Your task to perform on an android device: create a new album in the google photos Image 0: 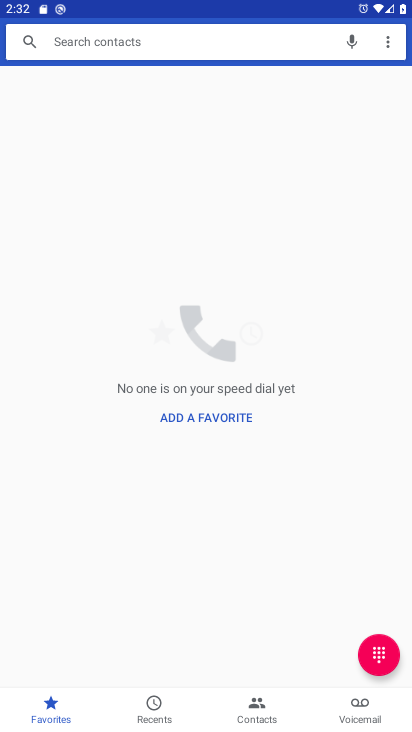
Step 0: press home button
Your task to perform on an android device: create a new album in the google photos Image 1: 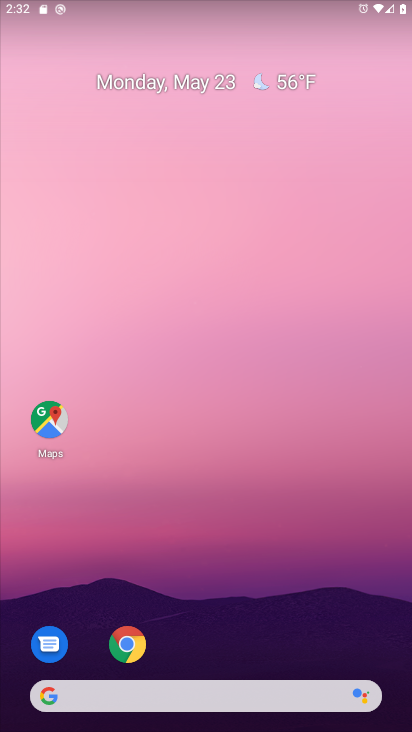
Step 1: drag from (196, 632) to (195, 143)
Your task to perform on an android device: create a new album in the google photos Image 2: 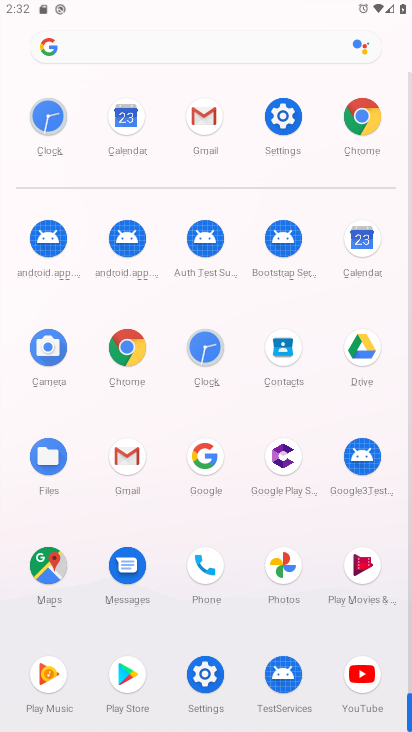
Step 2: click (275, 577)
Your task to perform on an android device: create a new album in the google photos Image 3: 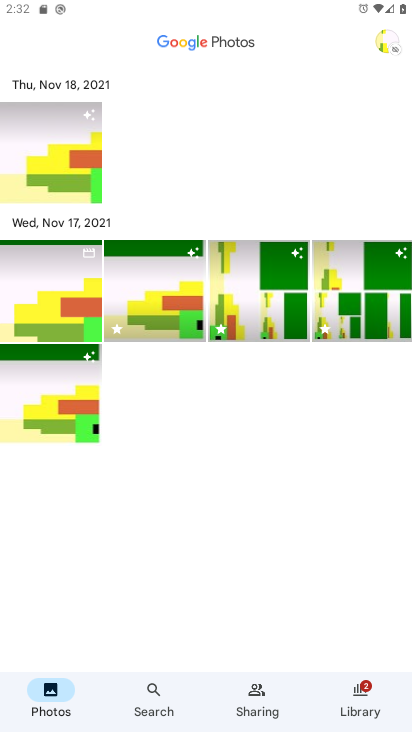
Step 3: click (365, 708)
Your task to perform on an android device: create a new album in the google photos Image 4: 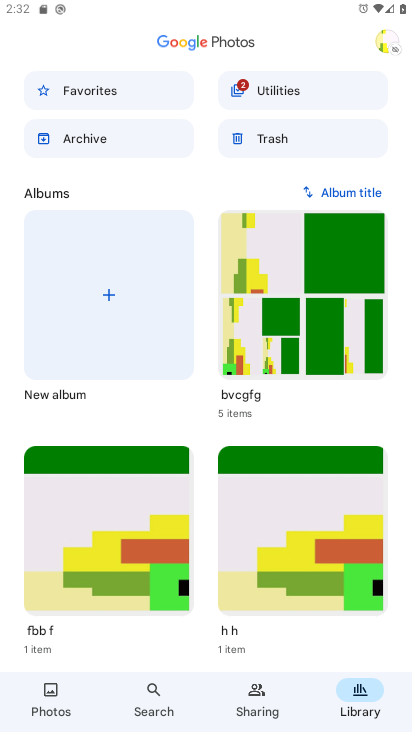
Step 4: click (103, 331)
Your task to perform on an android device: create a new album in the google photos Image 5: 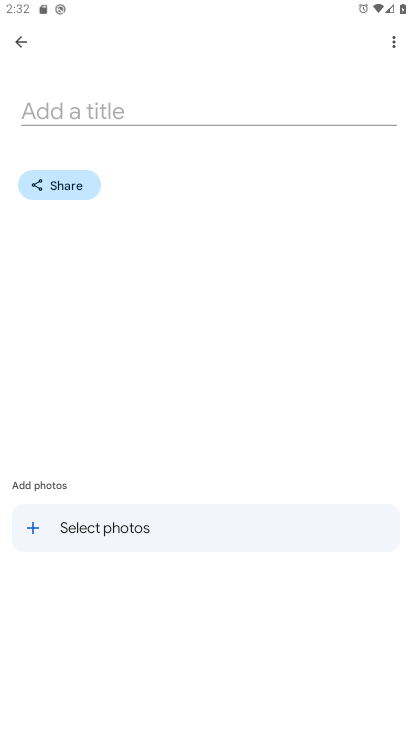
Step 5: click (124, 112)
Your task to perform on an android device: create a new album in the google photos Image 6: 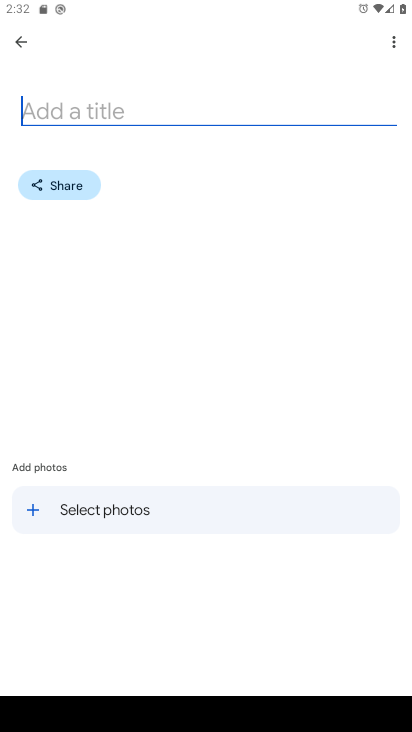
Step 6: type "Majnu"
Your task to perform on an android device: create a new album in the google photos Image 7: 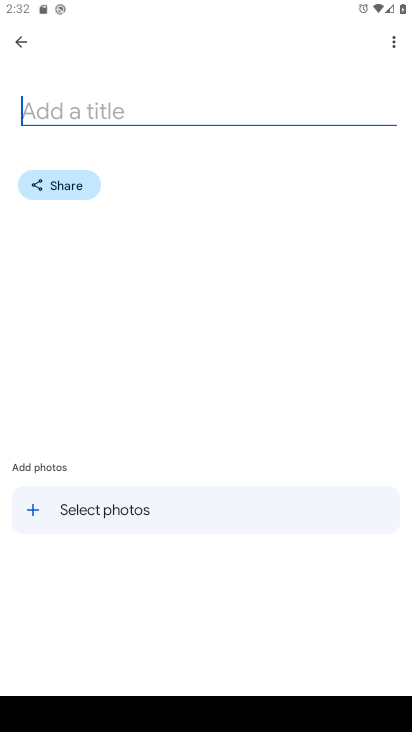
Step 7: click (89, 505)
Your task to perform on an android device: create a new album in the google photos Image 8: 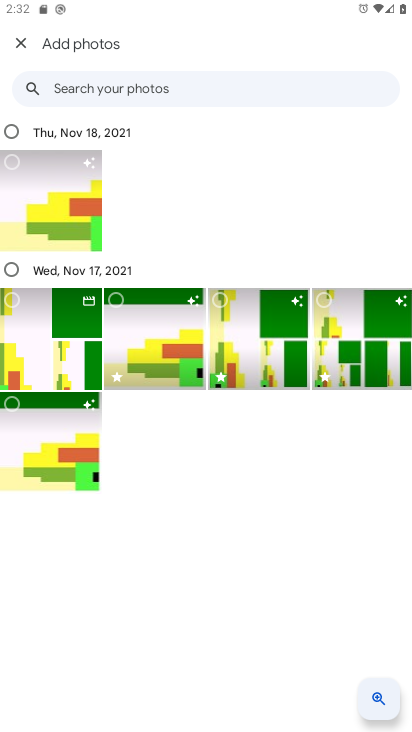
Step 8: click (7, 129)
Your task to perform on an android device: create a new album in the google photos Image 9: 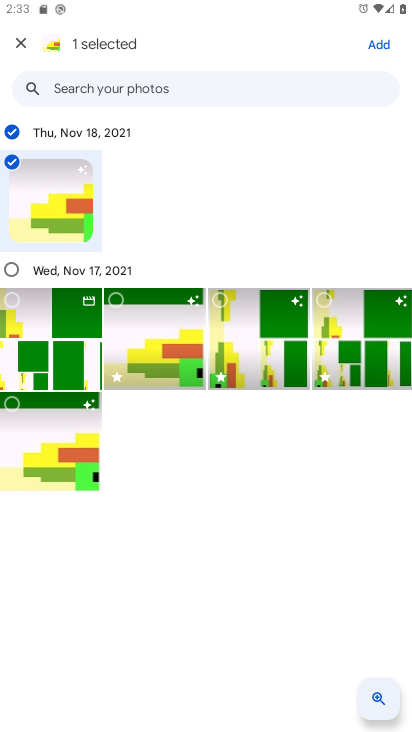
Step 9: click (384, 39)
Your task to perform on an android device: create a new album in the google photos Image 10: 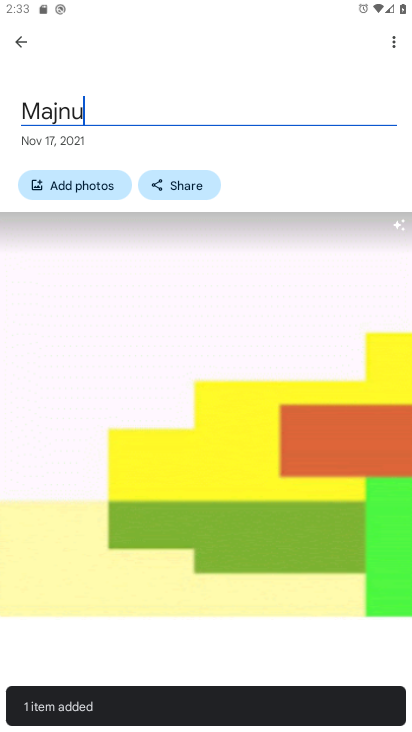
Step 10: click (300, 76)
Your task to perform on an android device: create a new album in the google photos Image 11: 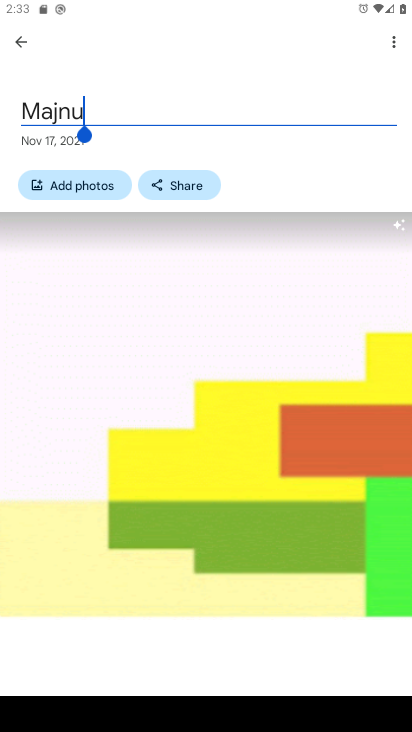
Step 11: click (85, 187)
Your task to perform on an android device: create a new album in the google photos Image 12: 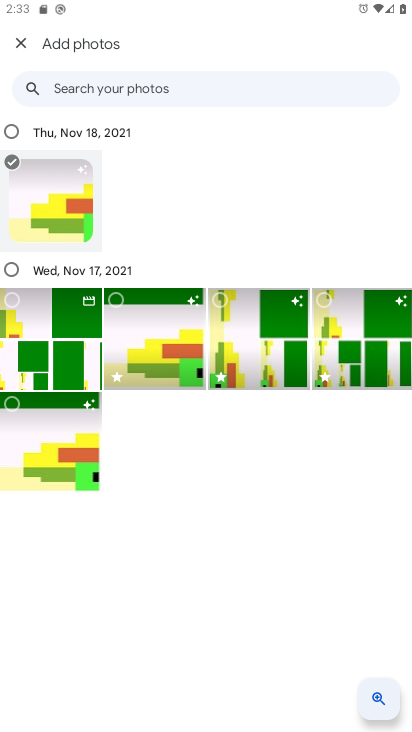
Step 12: click (15, 45)
Your task to perform on an android device: create a new album in the google photos Image 13: 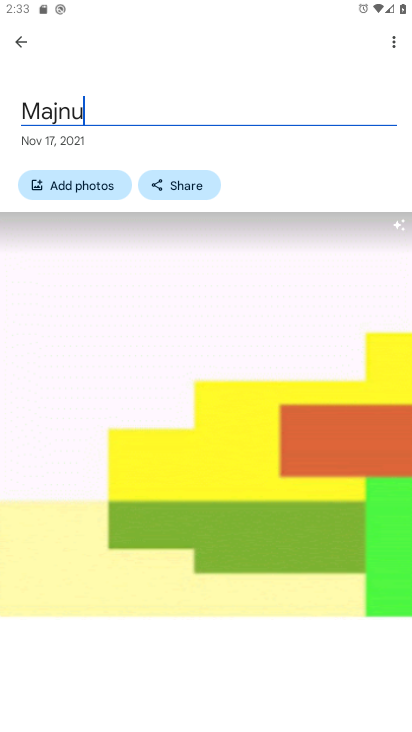
Step 13: click (390, 45)
Your task to perform on an android device: create a new album in the google photos Image 14: 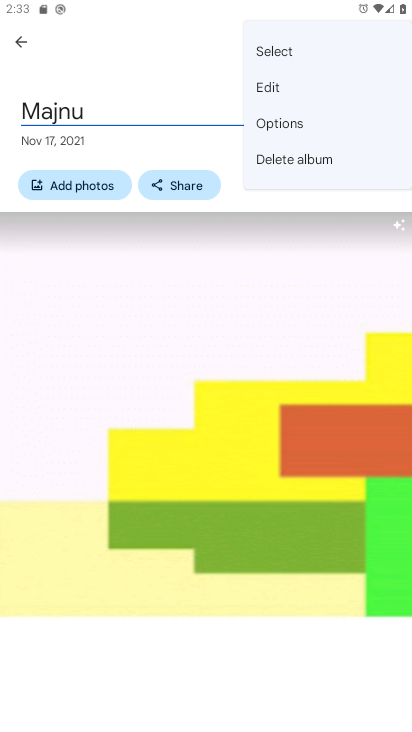
Step 14: click (210, 291)
Your task to perform on an android device: create a new album in the google photos Image 15: 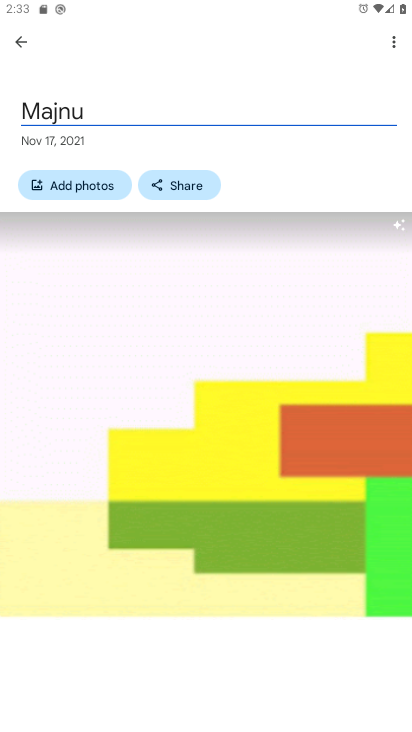
Step 15: task complete